Your task to perform on an android device: Empty the shopping cart on bestbuy. Search for "razer thresher" on bestbuy, select the first entry, add it to the cart, then select checkout. Image 0: 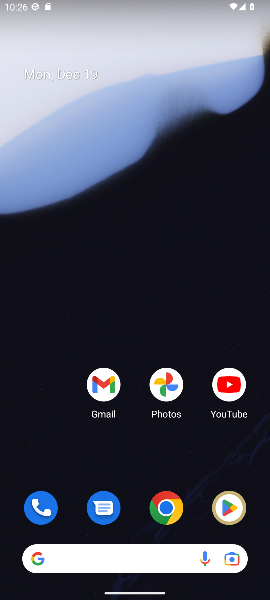
Step 0: click (164, 513)
Your task to perform on an android device: Empty the shopping cart on bestbuy. Search for "razer thresher" on bestbuy, select the first entry, add it to the cart, then select checkout. Image 1: 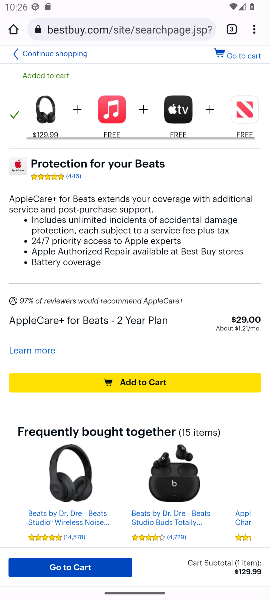
Step 1: click (237, 52)
Your task to perform on an android device: Empty the shopping cart on bestbuy. Search for "razer thresher" on bestbuy, select the first entry, add it to the cart, then select checkout. Image 2: 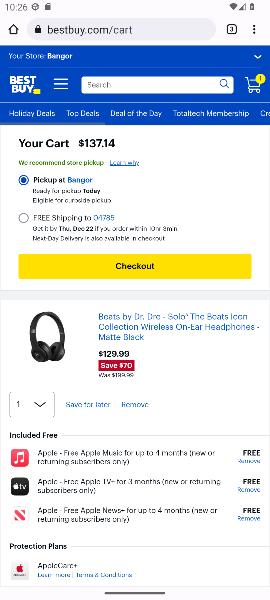
Step 2: click (132, 402)
Your task to perform on an android device: Empty the shopping cart on bestbuy. Search for "razer thresher" on bestbuy, select the first entry, add it to the cart, then select checkout. Image 3: 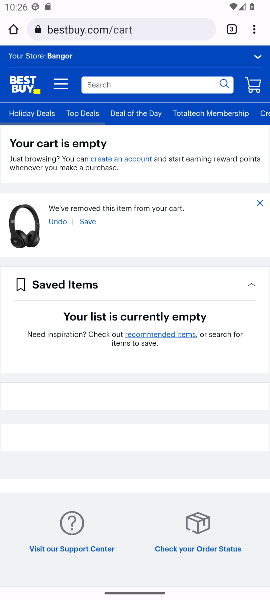
Step 3: click (131, 89)
Your task to perform on an android device: Empty the shopping cart on bestbuy. Search for "razer thresher" on bestbuy, select the first entry, add it to the cart, then select checkout. Image 4: 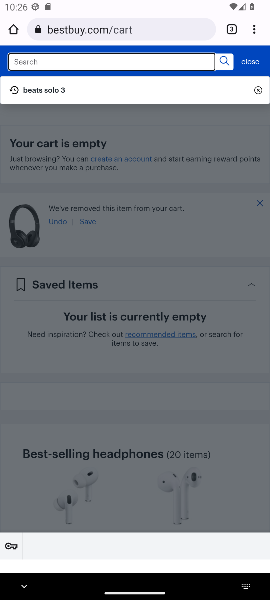
Step 4: type "razer thresher"
Your task to perform on an android device: Empty the shopping cart on bestbuy. Search for "razer thresher" on bestbuy, select the first entry, add it to the cart, then select checkout. Image 5: 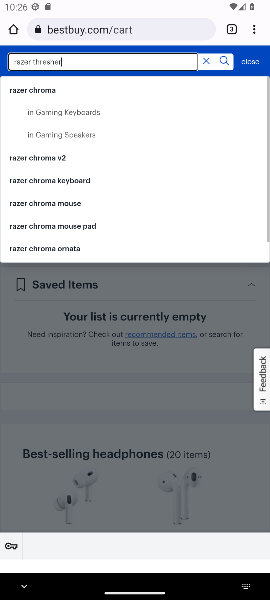
Step 5: click (230, 59)
Your task to perform on an android device: Empty the shopping cart on bestbuy. Search for "razer thresher" on bestbuy, select the first entry, add it to the cart, then select checkout. Image 6: 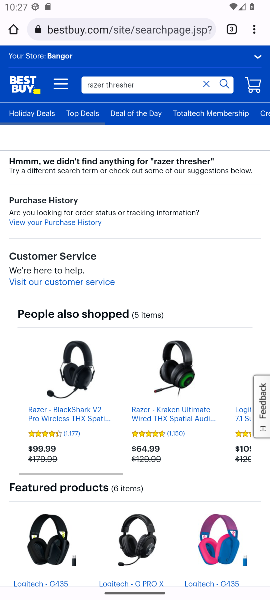
Step 6: task complete